Your task to perform on an android device: remove spam from my inbox in the gmail app Image 0: 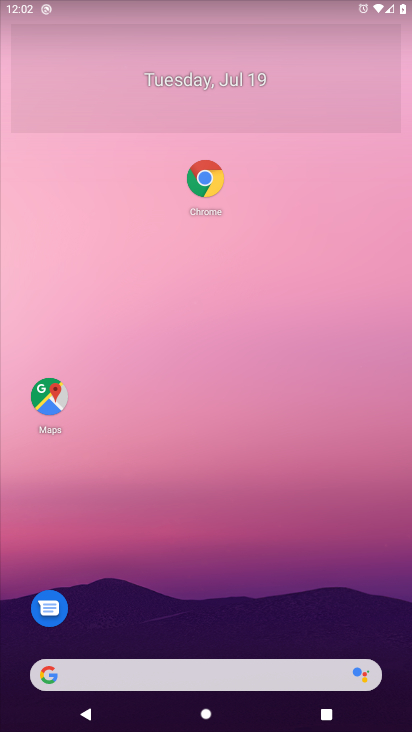
Step 0: drag from (185, 382) to (230, 169)
Your task to perform on an android device: remove spam from my inbox in the gmail app Image 1: 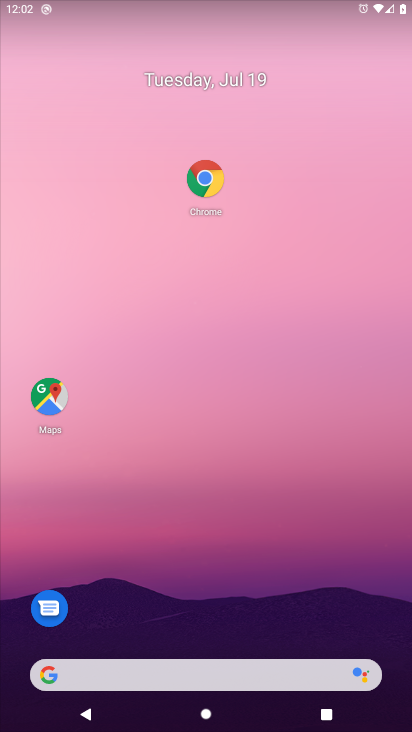
Step 1: drag from (56, 691) to (222, 254)
Your task to perform on an android device: remove spam from my inbox in the gmail app Image 2: 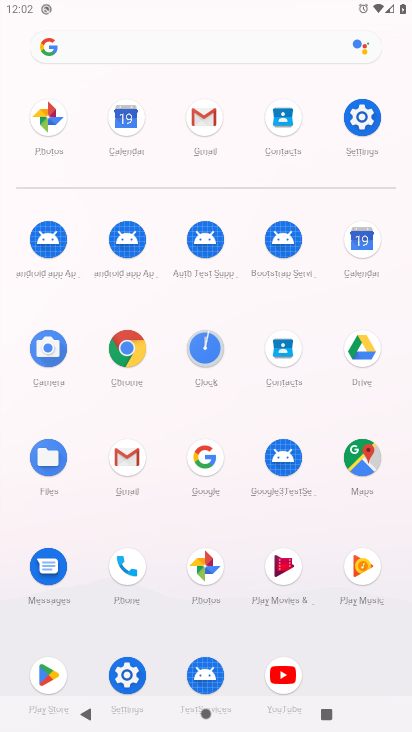
Step 2: click (135, 464)
Your task to perform on an android device: remove spam from my inbox in the gmail app Image 3: 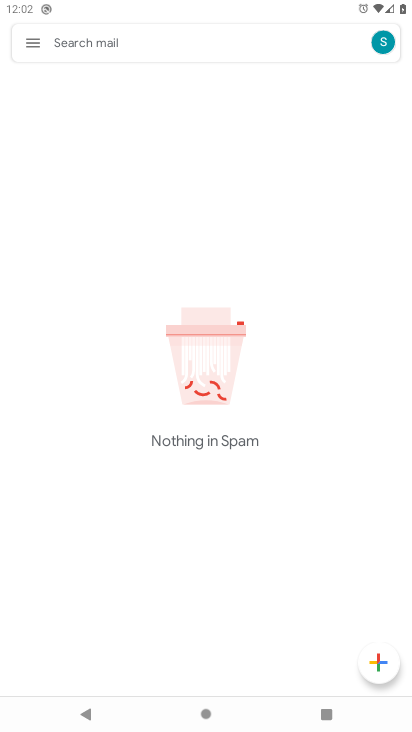
Step 3: click (24, 41)
Your task to perform on an android device: remove spam from my inbox in the gmail app Image 4: 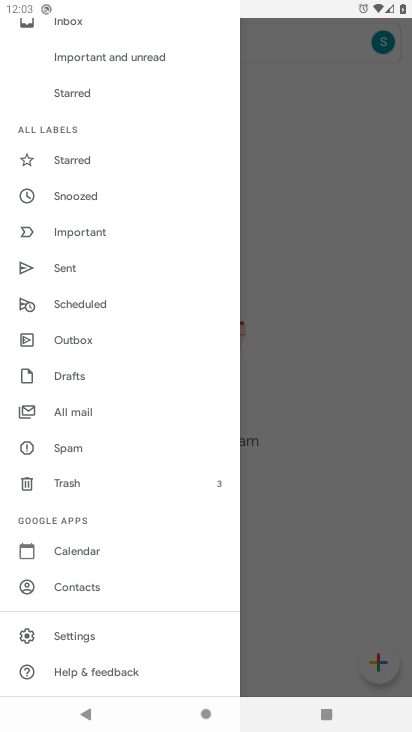
Step 4: click (57, 443)
Your task to perform on an android device: remove spam from my inbox in the gmail app Image 5: 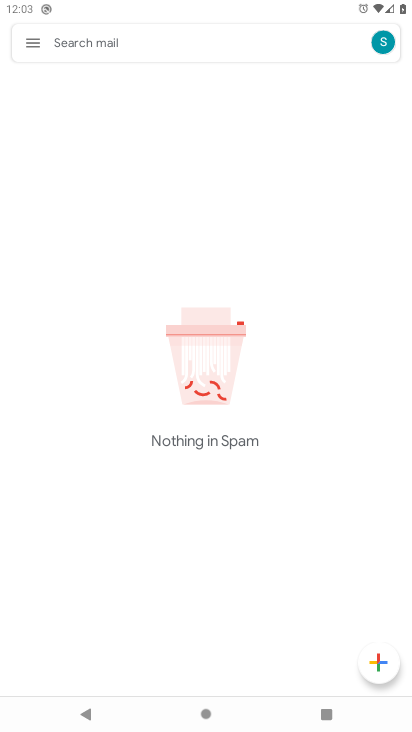
Step 5: task complete